Your task to perform on an android device: allow cookies in the chrome app Image 0: 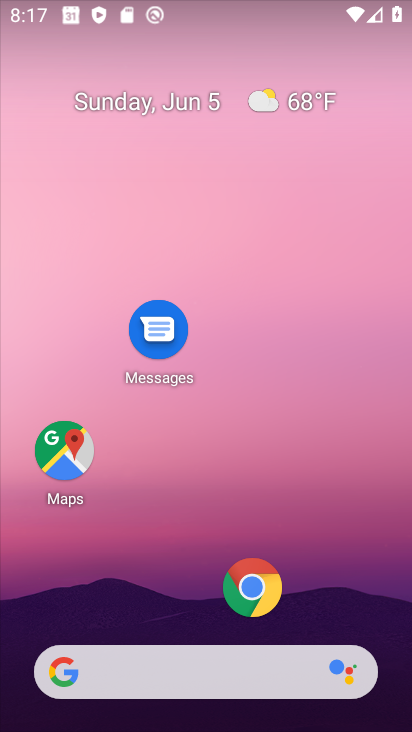
Step 0: drag from (241, 616) to (240, 326)
Your task to perform on an android device: allow cookies in the chrome app Image 1: 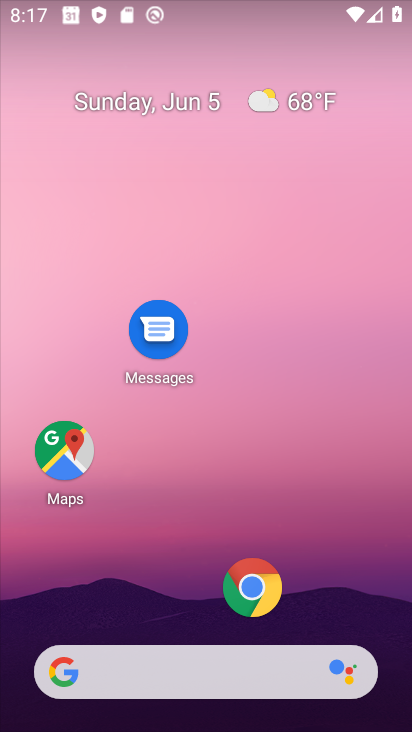
Step 1: click (273, 604)
Your task to perform on an android device: allow cookies in the chrome app Image 2: 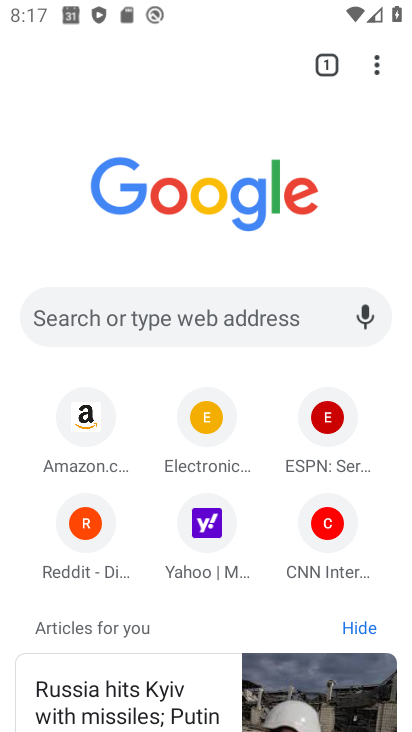
Step 2: click (379, 70)
Your task to perform on an android device: allow cookies in the chrome app Image 3: 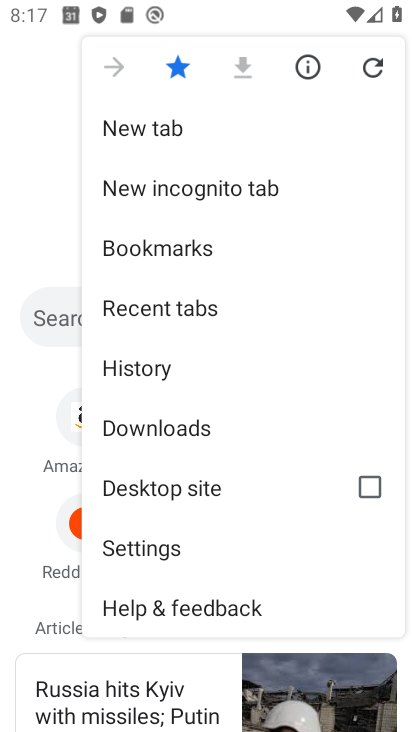
Step 3: click (174, 543)
Your task to perform on an android device: allow cookies in the chrome app Image 4: 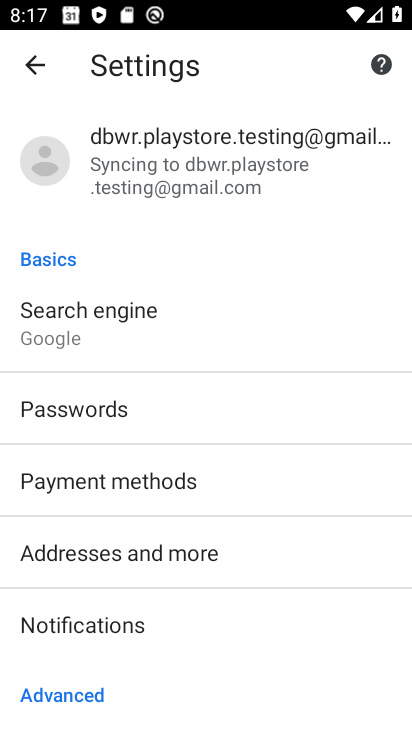
Step 4: drag from (163, 616) to (177, 391)
Your task to perform on an android device: allow cookies in the chrome app Image 5: 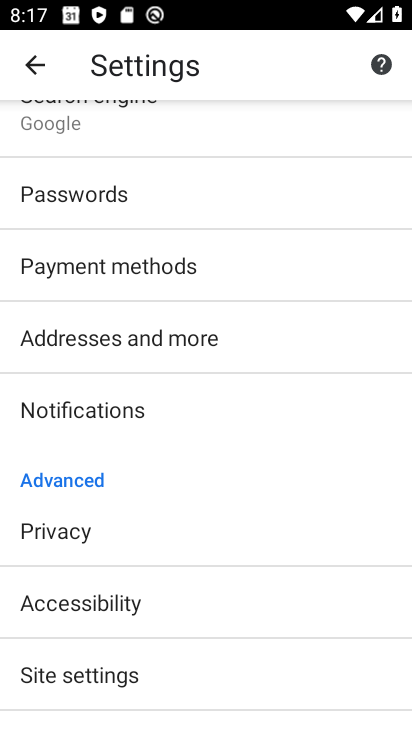
Step 5: drag from (164, 555) to (236, 259)
Your task to perform on an android device: allow cookies in the chrome app Image 6: 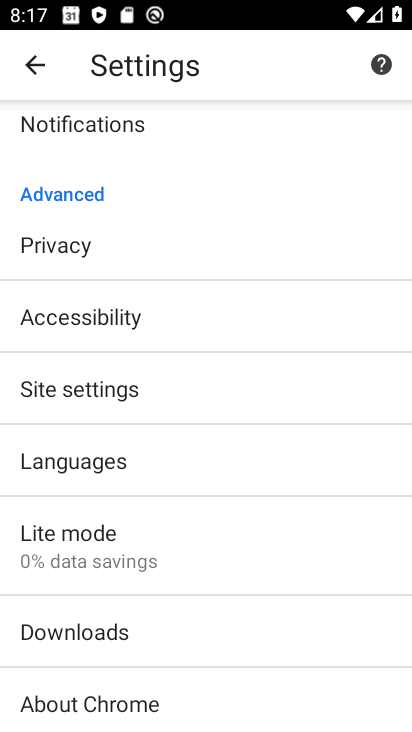
Step 6: click (122, 395)
Your task to perform on an android device: allow cookies in the chrome app Image 7: 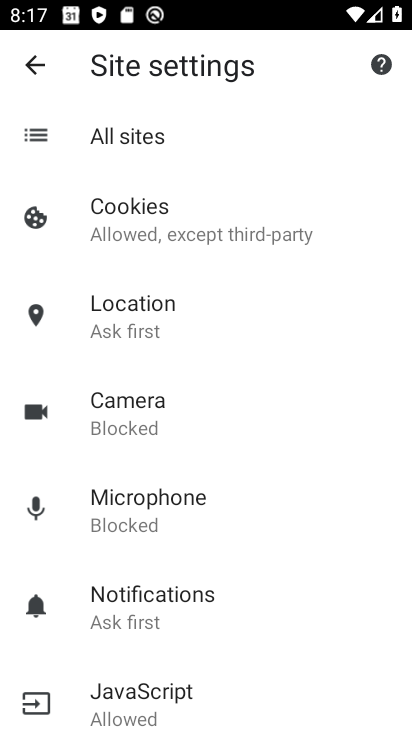
Step 7: click (175, 238)
Your task to perform on an android device: allow cookies in the chrome app Image 8: 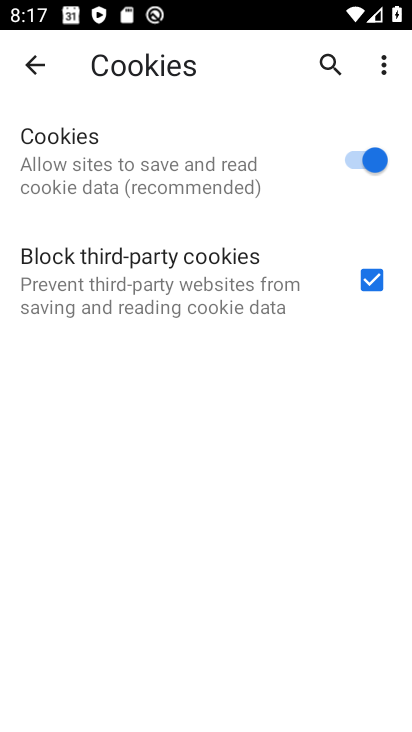
Step 8: task complete